Your task to perform on an android device: Open Maps and search for coffee Image 0: 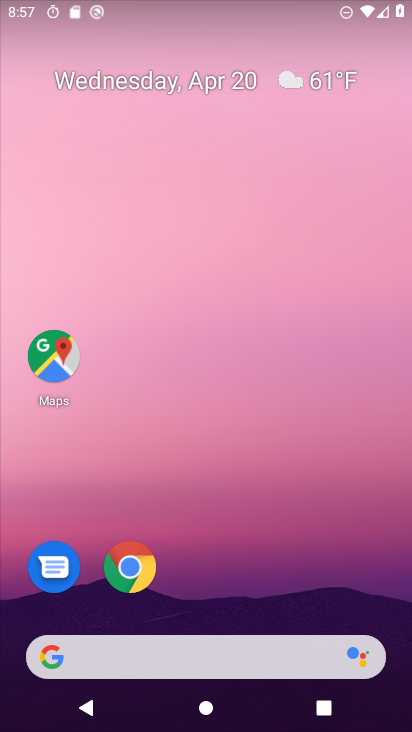
Step 0: click (51, 362)
Your task to perform on an android device: Open Maps and search for coffee Image 1: 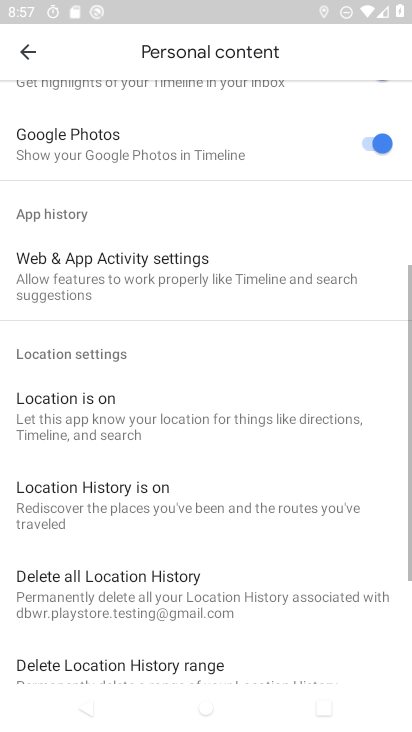
Step 1: click (22, 54)
Your task to perform on an android device: Open Maps and search for coffee Image 2: 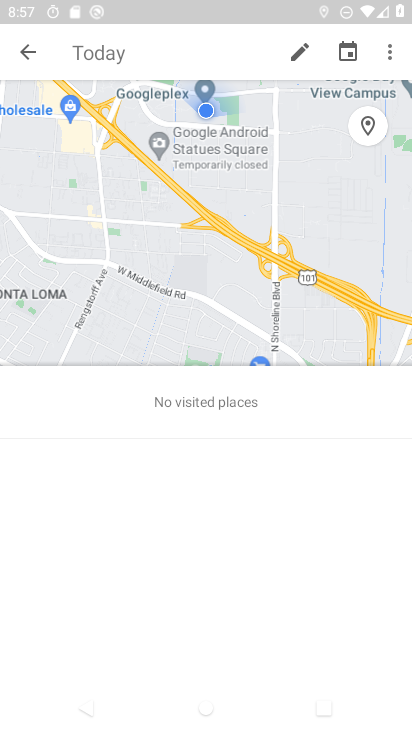
Step 2: click (92, 43)
Your task to perform on an android device: Open Maps and search for coffee Image 3: 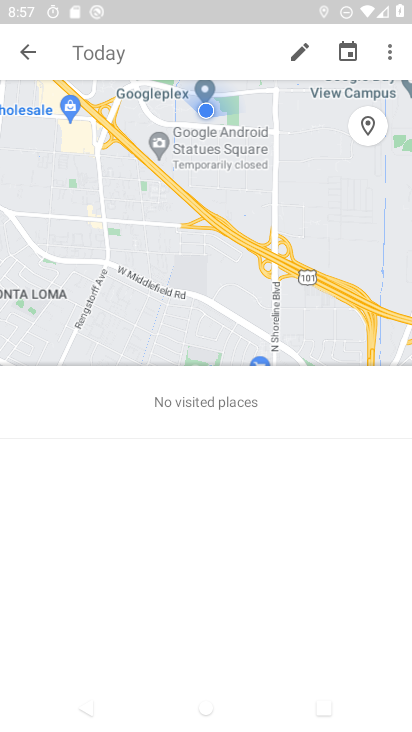
Step 3: click (16, 54)
Your task to perform on an android device: Open Maps and search for coffee Image 4: 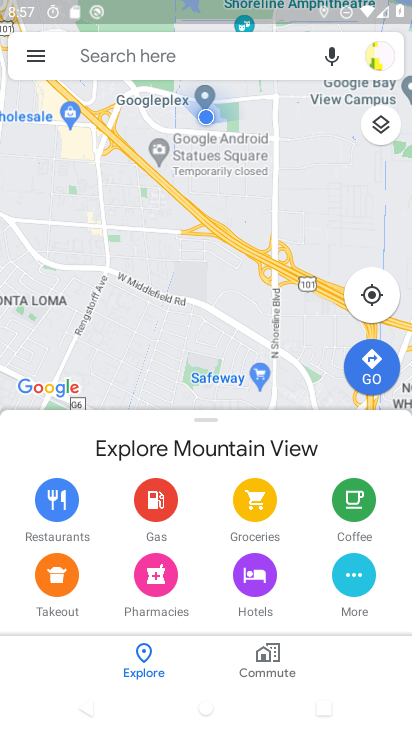
Step 4: click (128, 61)
Your task to perform on an android device: Open Maps and search for coffee Image 5: 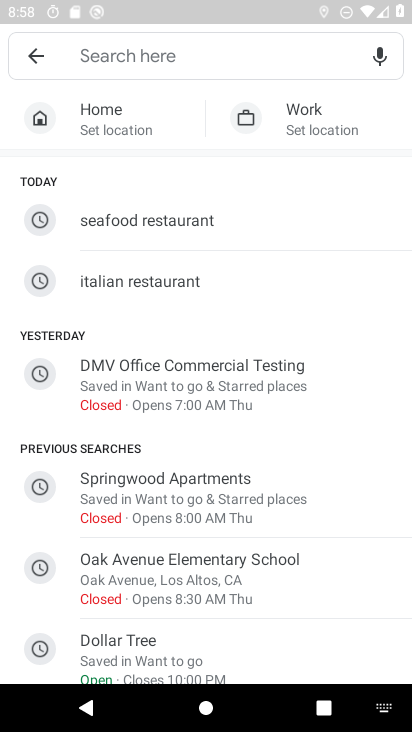
Step 5: type "coffee"
Your task to perform on an android device: Open Maps and search for coffee Image 6: 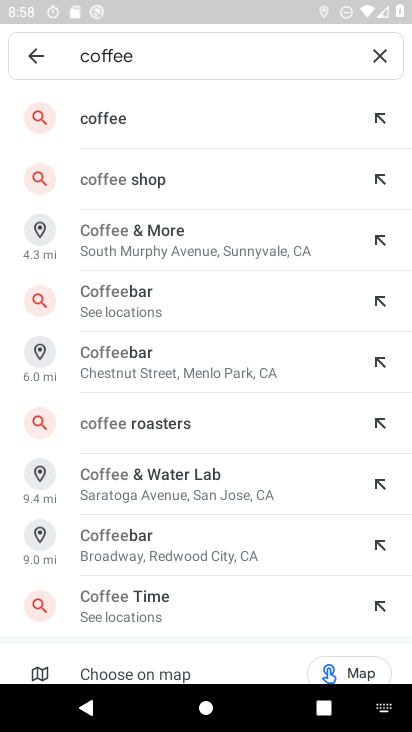
Step 6: click (171, 120)
Your task to perform on an android device: Open Maps and search for coffee Image 7: 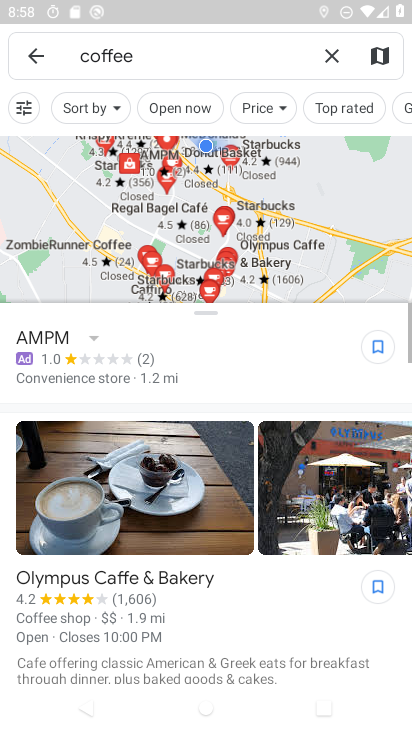
Step 7: task complete